Your task to perform on an android device: toggle data saver in the chrome app Image 0: 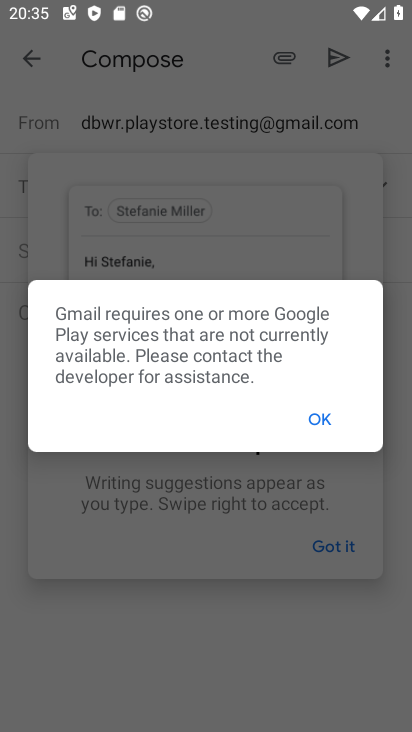
Step 0: press home button
Your task to perform on an android device: toggle data saver in the chrome app Image 1: 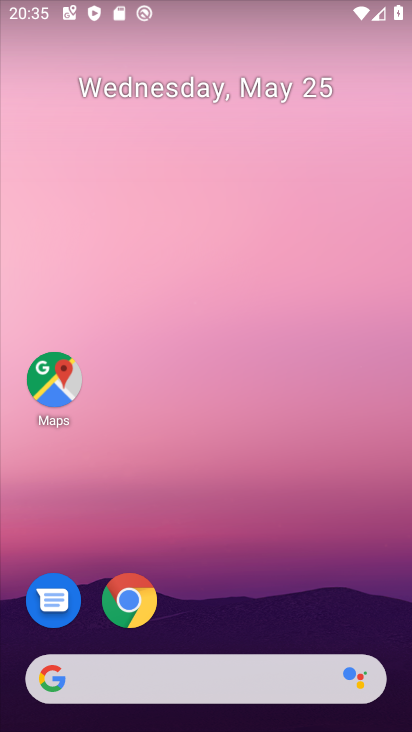
Step 1: drag from (307, 598) to (302, 202)
Your task to perform on an android device: toggle data saver in the chrome app Image 2: 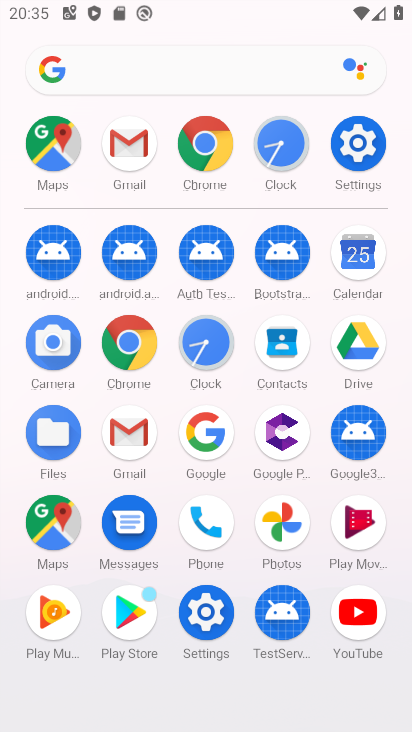
Step 2: click (200, 145)
Your task to perform on an android device: toggle data saver in the chrome app Image 3: 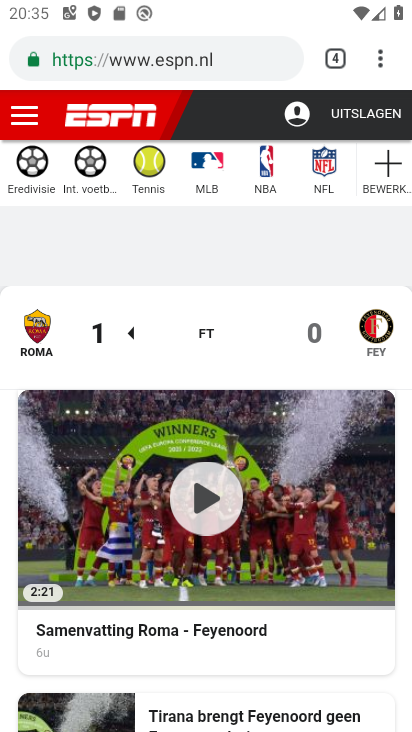
Step 3: click (383, 66)
Your task to perform on an android device: toggle data saver in the chrome app Image 4: 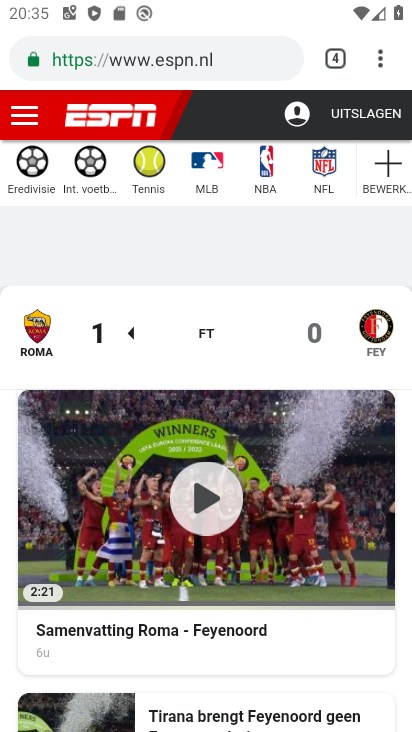
Step 4: drag from (382, 70) to (205, 638)
Your task to perform on an android device: toggle data saver in the chrome app Image 5: 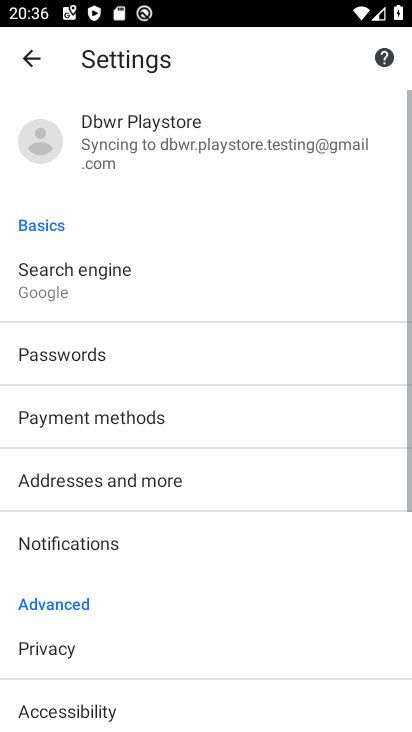
Step 5: drag from (241, 703) to (248, 290)
Your task to perform on an android device: toggle data saver in the chrome app Image 6: 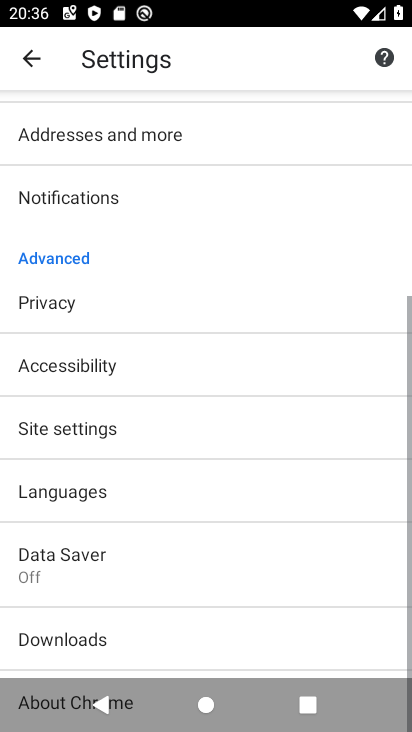
Step 6: drag from (219, 596) to (233, 303)
Your task to perform on an android device: toggle data saver in the chrome app Image 7: 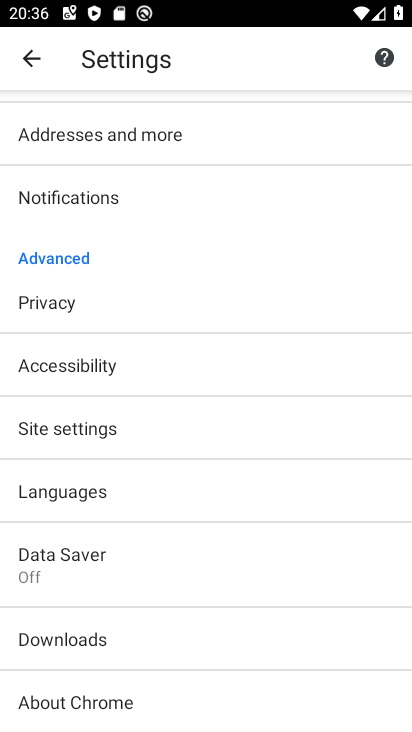
Step 7: click (127, 560)
Your task to perform on an android device: toggle data saver in the chrome app Image 8: 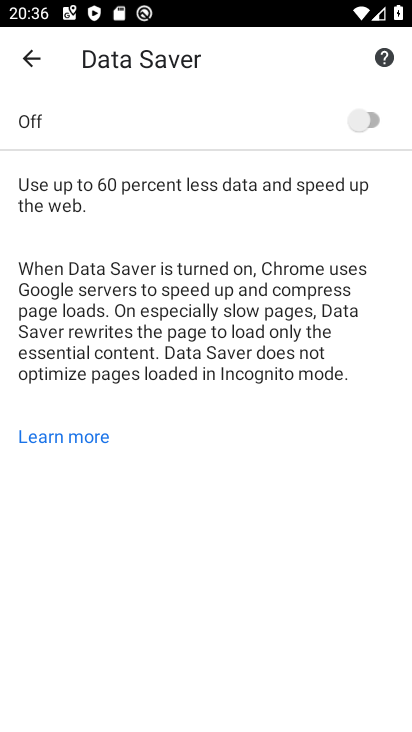
Step 8: click (376, 123)
Your task to perform on an android device: toggle data saver in the chrome app Image 9: 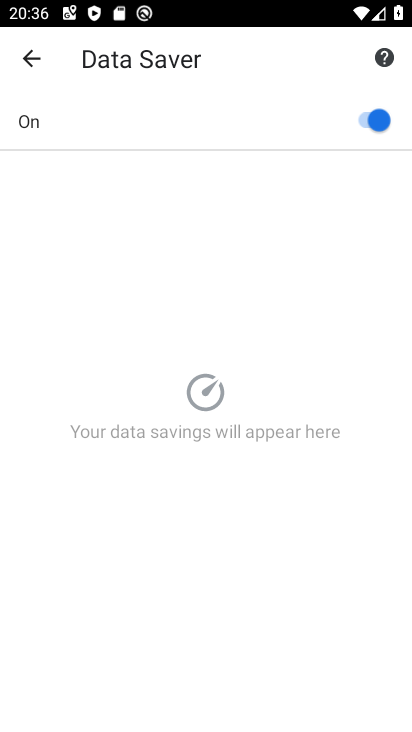
Step 9: task complete